Your task to perform on an android device: Go to settings Image 0: 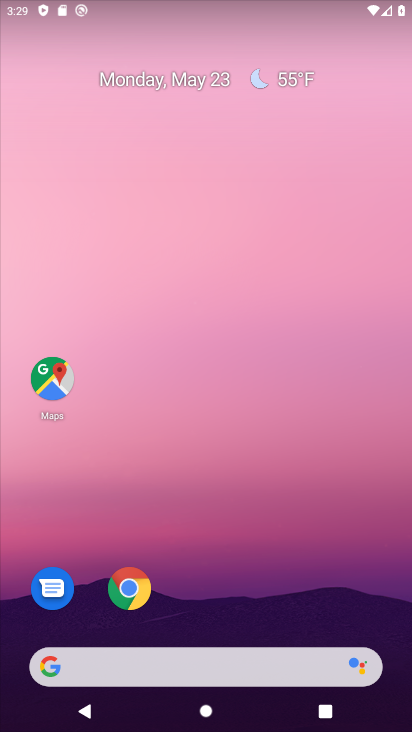
Step 0: drag from (217, 600) to (260, 82)
Your task to perform on an android device: Go to settings Image 1: 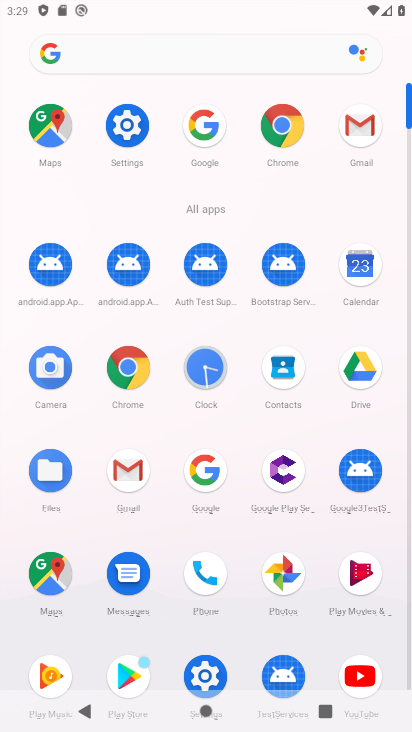
Step 1: click (126, 115)
Your task to perform on an android device: Go to settings Image 2: 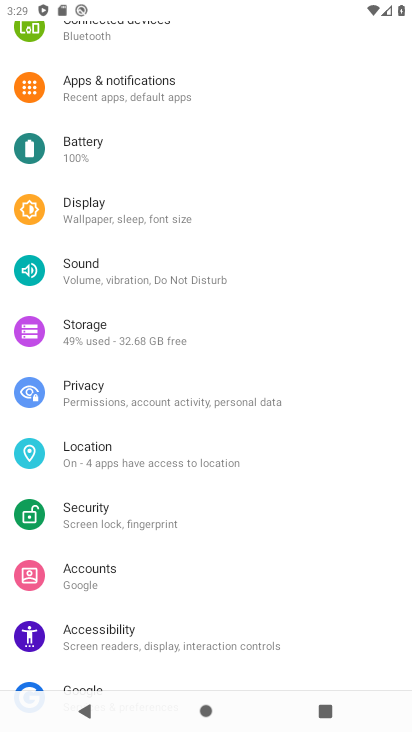
Step 2: task complete